Your task to perform on an android device: toggle priority inbox in the gmail app Image 0: 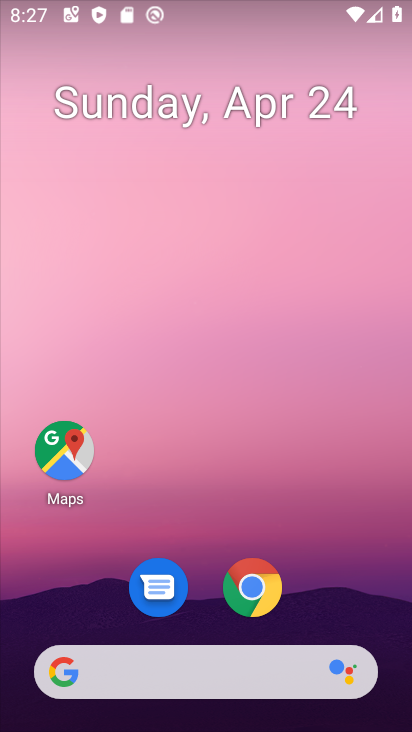
Step 0: drag from (355, 527) to (292, 34)
Your task to perform on an android device: toggle priority inbox in the gmail app Image 1: 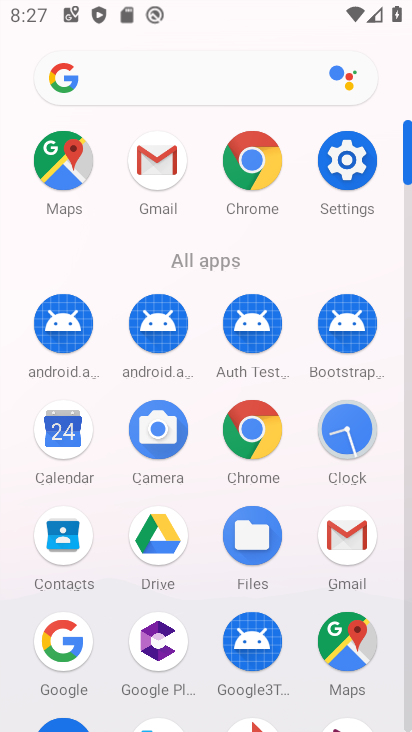
Step 1: click (350, 524)
Your task to perform on an android device: toggle priority inbox in the gmail app Image 2: 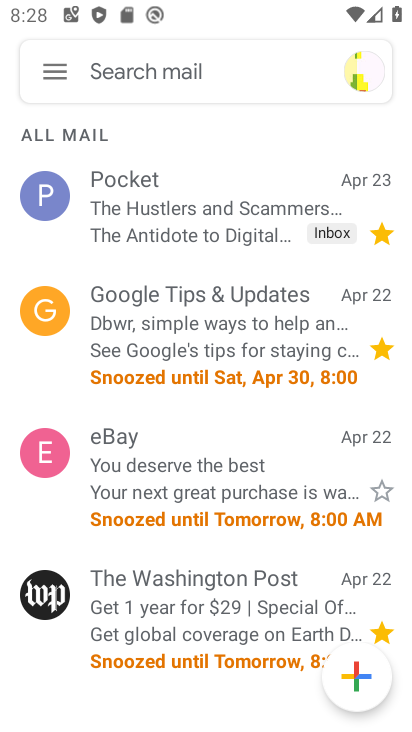
Step 2: click (62, 89)
Your task to perform on an android device: toggle priority inbox in the gmail app Image 3: 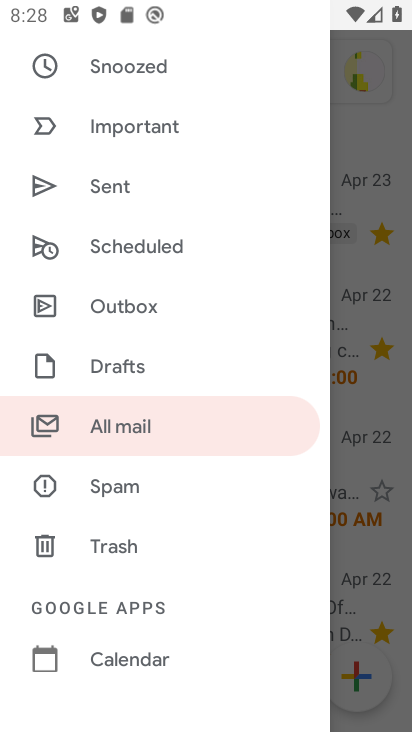
Step 3: drag from (177, 608) to (156, 64)
Your task to perform on an android device: toggle priority inbox in the gmail app Image 4: 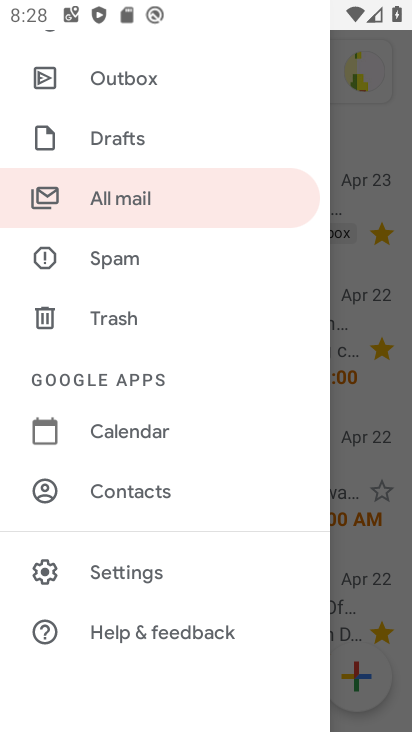
Step 4: click (140, 574)
Your task to perform on an android device: toggle priority inbox in the gmail app Image 5: 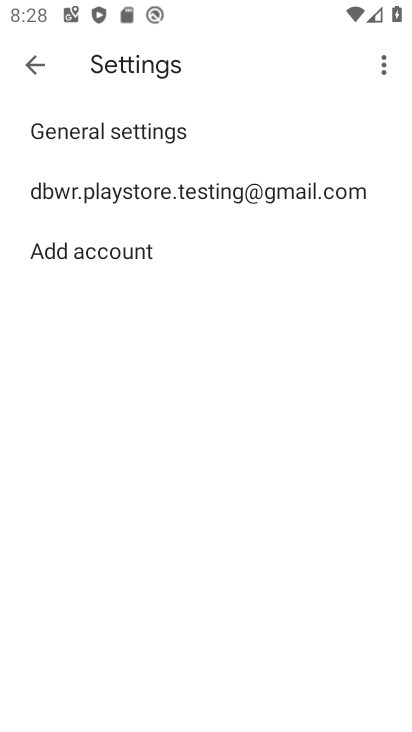
Step 5: click (126, 172)
Your task to perform on an android device: toggle priority inbox in the gmail app Image 6: 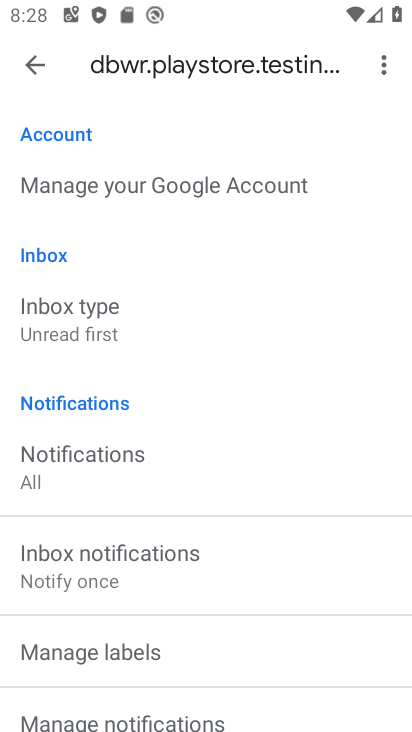
Step 6: drag from (162, 602) to (128, 407)
Your task to perform on an android device: toggle priority inbox in the gmail app Image 7: 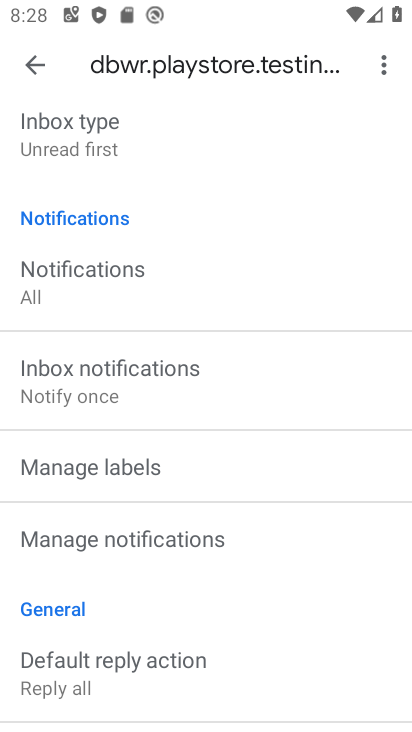
Step 7: click (62, 125)
Your task to perform on an android device: toggle priority inbox in the gmail app Image 8: 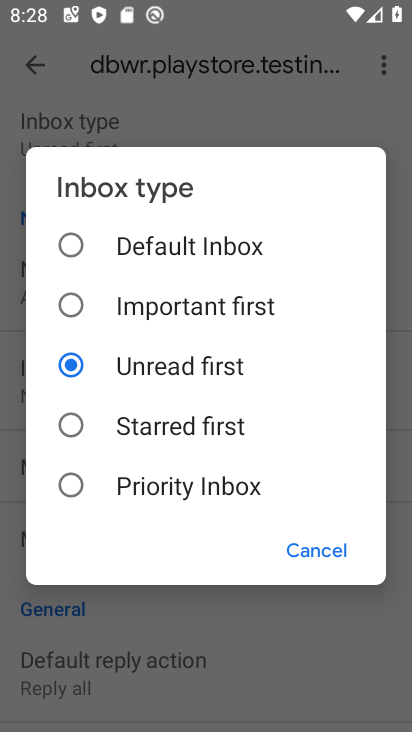
Step 8: click (142, 489)
Your task to perform on an android device: toggle priority inbox in the gmail app Image 9: 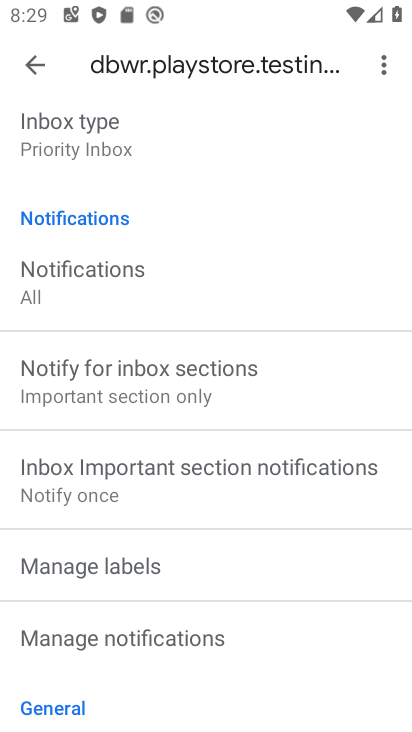
Step 9: task complete